Your task to perform on an android device: Go to internet settings Image 0: 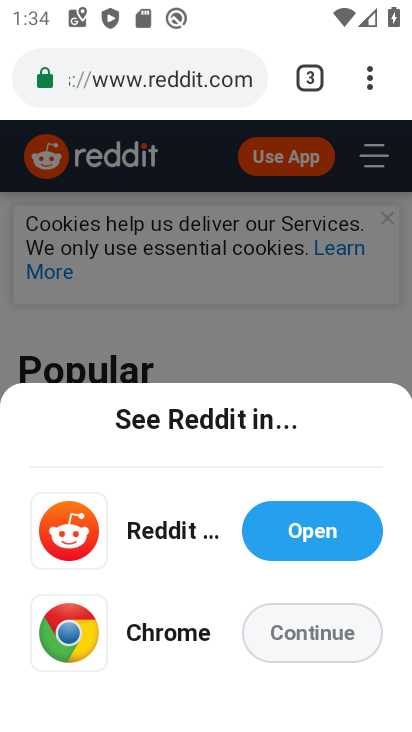
Step 0: press home button
Your task to perform on an android device: Go to internet settings Image 1: 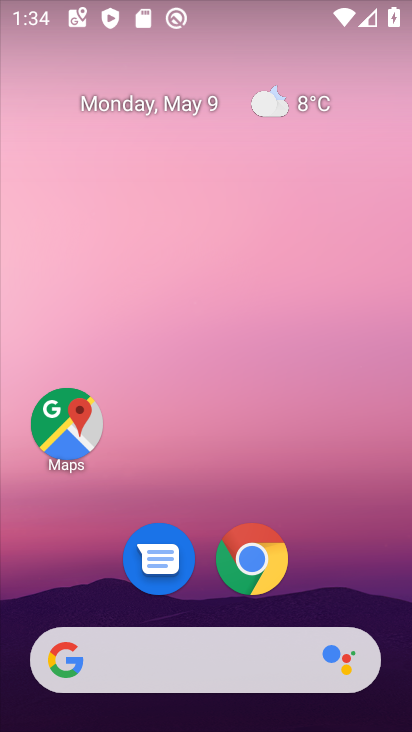
Step 1: drag from (329, 543) to (210, 38)
Your task to perform on an android device: Go to internet settings Image 2: 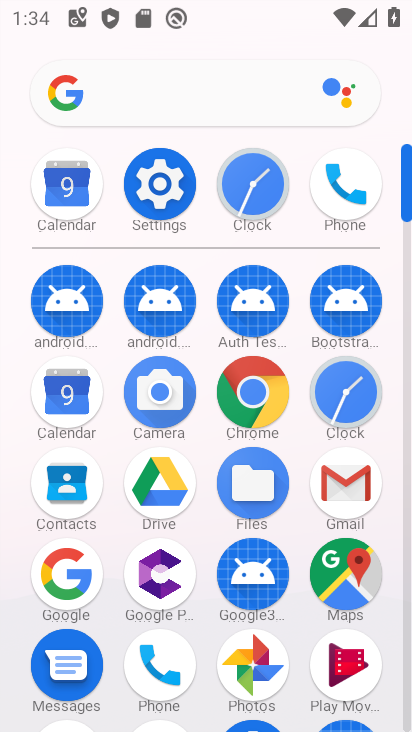
Step 2: click (159, 189)
Your task to perform on an android device: Go to internet settings Image 3: 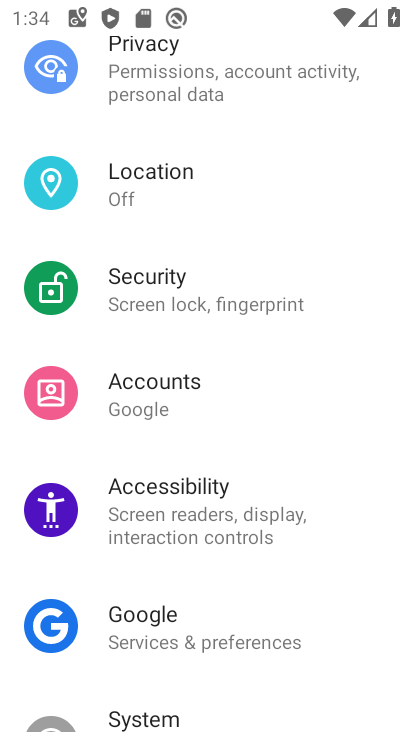
Step 3: drag from (244, 180) to (356, 728)
Your task to perform on an android device: Go to internet settings Image 4: 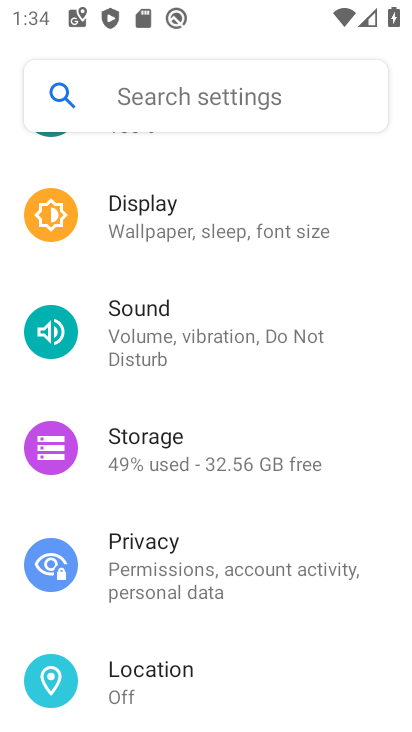
Step 4: drag from (210, 265) to (355, 711)
Your task to perform on an android device: Go to internet settings Image 5: 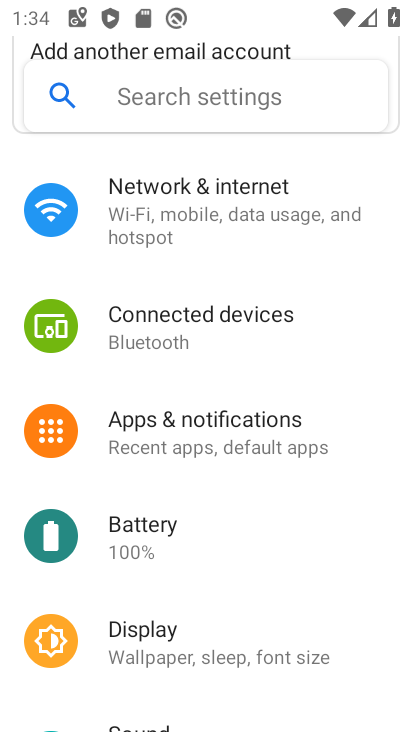
Step 5: drag from (191, 277) to (230, 726)
Your task to perform on an android device: Go to internet settings Image 6: 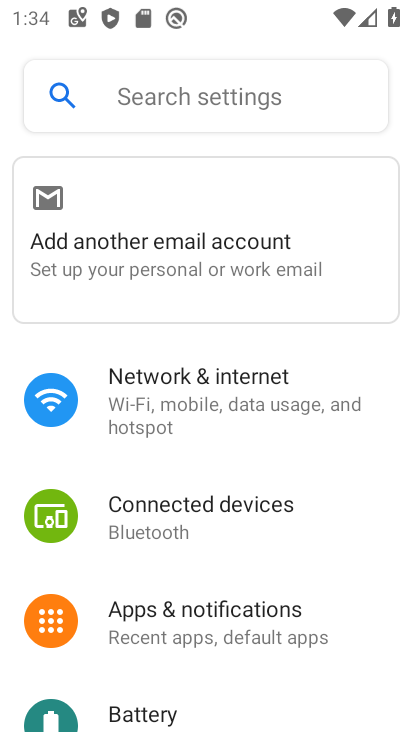
Step 6: click (179, 388)
Your task to perform on an android device: Go to internet settings Image 7: 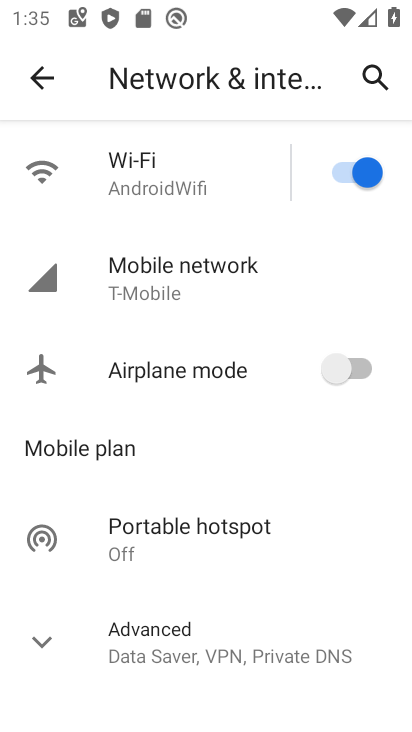
Step 7: task complete